Your task to perform on an android device: Open network settings Image 0: 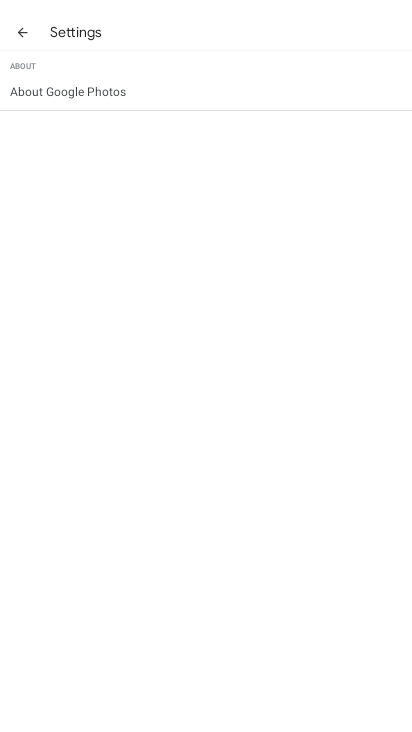
Step 0: press home button
Your task to perform on an android device: Open network settings Image 1: 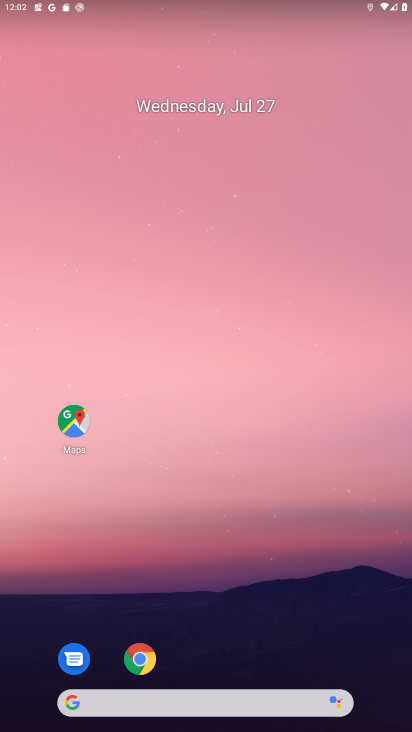
Step 1: drag from (171, 714) to (270, 306)
Your task to perform on an android device: Open network settings Image 2: 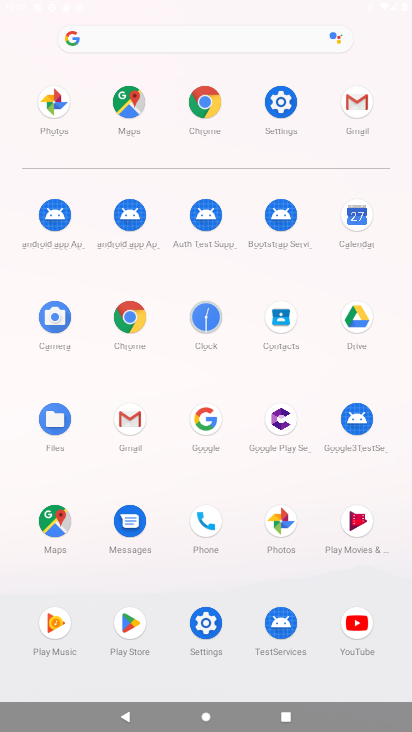
Step 2: click (294, 107)
Your task to perform on an android device: Open network settings Image 3: 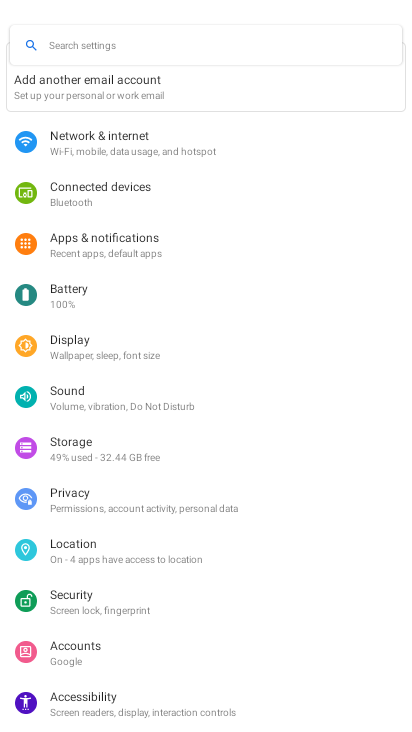
Step 3: click (119, 156)
Your task to perform on an android device: Open network settings Image 4: 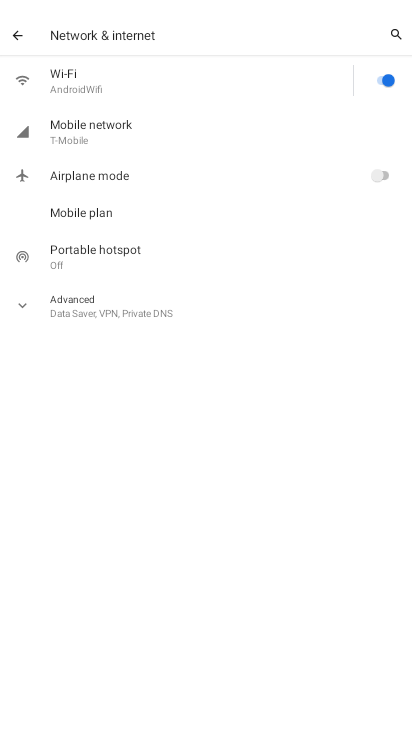
Step 4: click (120, 138)
Your task to perform on an android device: Open network settings Image 5: 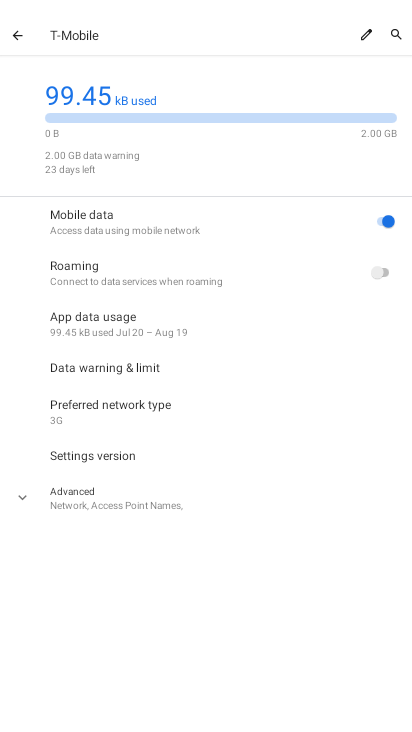
Step 5: task complete